Your task to perform on an android device: When is my next appointment? Image 0: 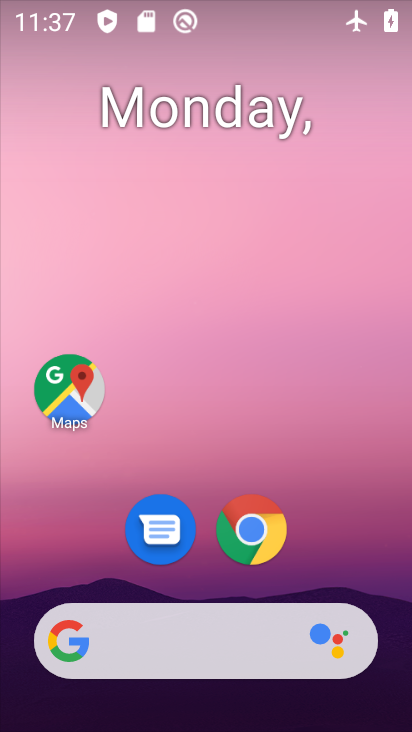
Step 0: drag from (205, 728) to (208, 190)
Your task to perform on an android device: When is my next appointment? Image 1: 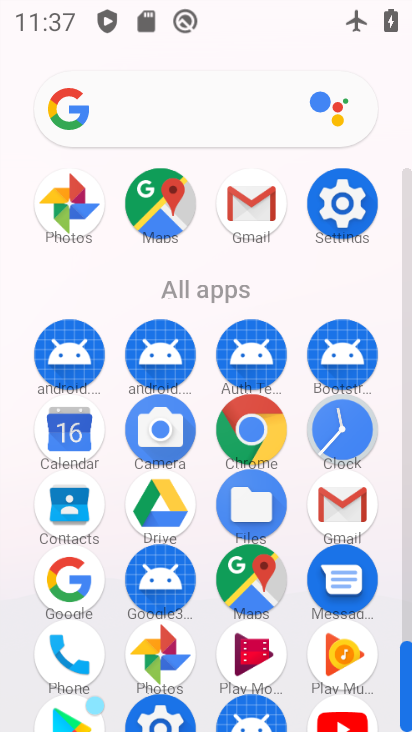
Step 1: click (57, 433)
Your task to perform on an android device: When is my next appointment? Image 2: 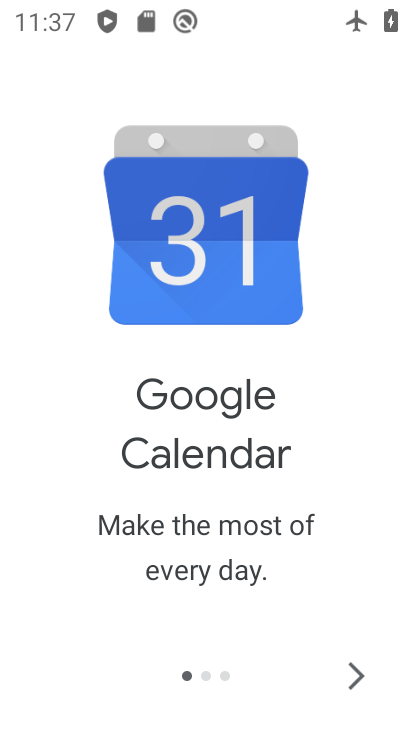
Step 2: click (362, 674)
Your task to perform on an android device: When is my next appointment? Image 3: 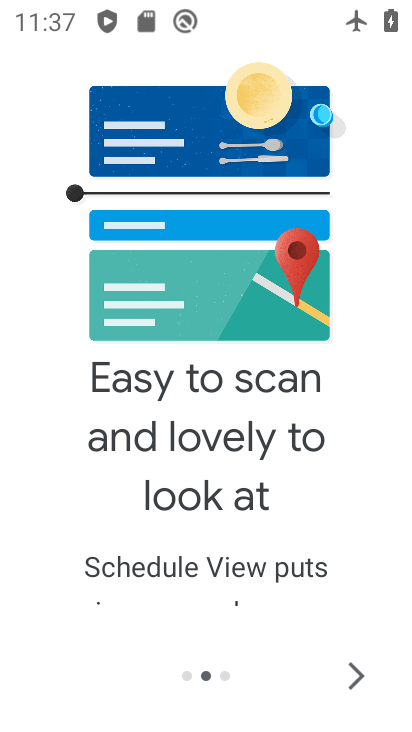
Step 3: click (362, 671)
Your task to perform on an android device: When is my next appointment? Image 4: 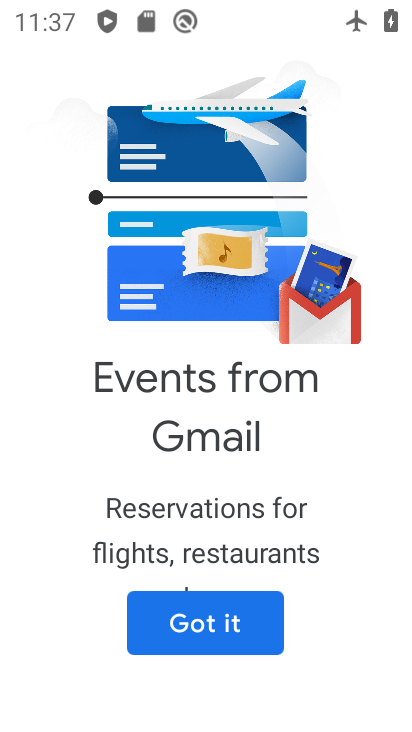
Step 4: click (227, 623)
Your task to perform on an android device: When is my next appointment? Image 5: 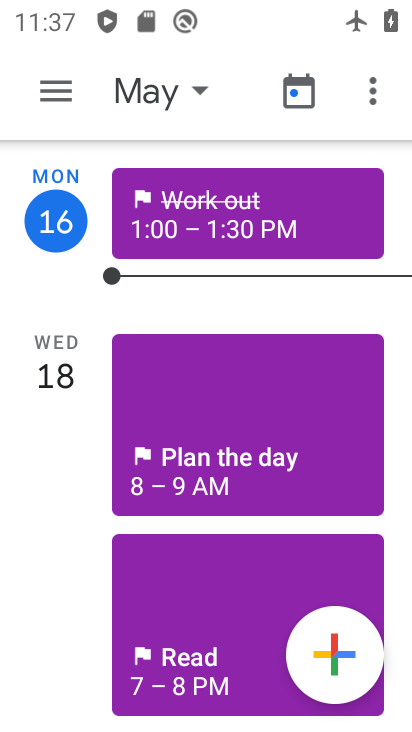
Step 5: click (152, 89)
Your task to perform on an android device: When is my next appointment? Image 6: 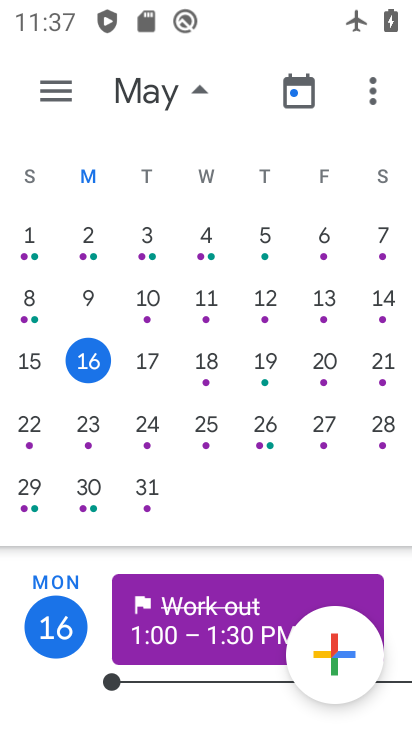
Step 6: click (144, 364)
Your task to perform on an android device: When is my next appointment? Image 7: 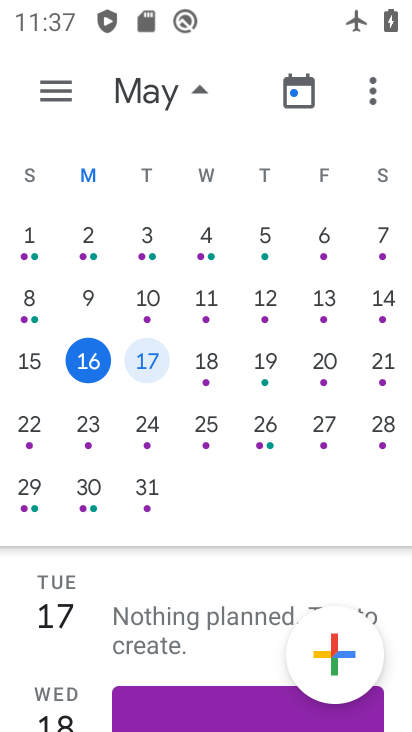
Step 7: task complete